Your task to perform on an android device: turn off location Image 0: 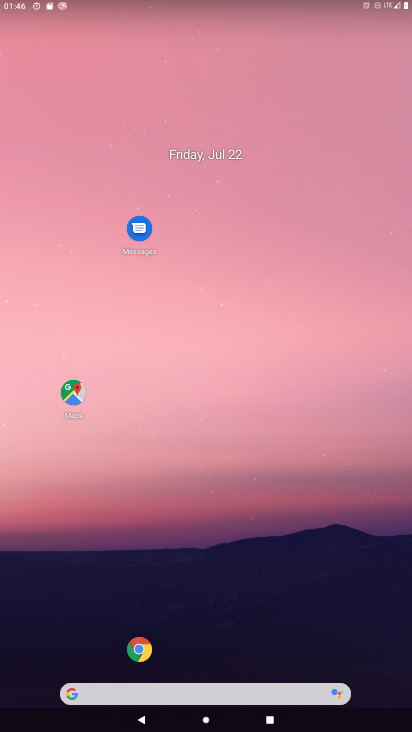
Step 0: drag from (54, 705) to (279, 173)
Your task to perform on an android device: turn off location Image 1: 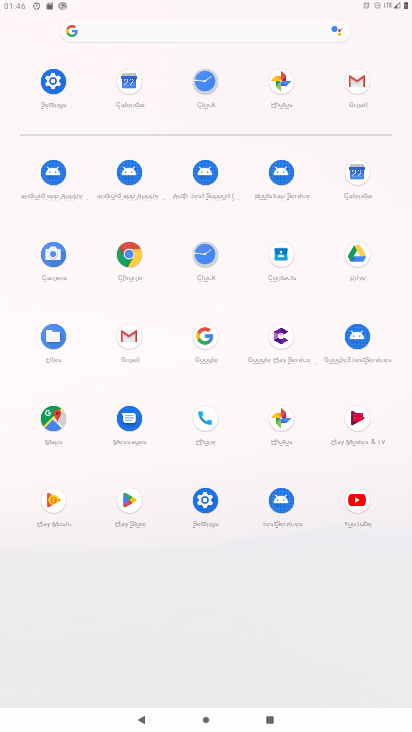
Step 1: click (199, 508)
Your task to perform on an android device: turn off location Image 2: 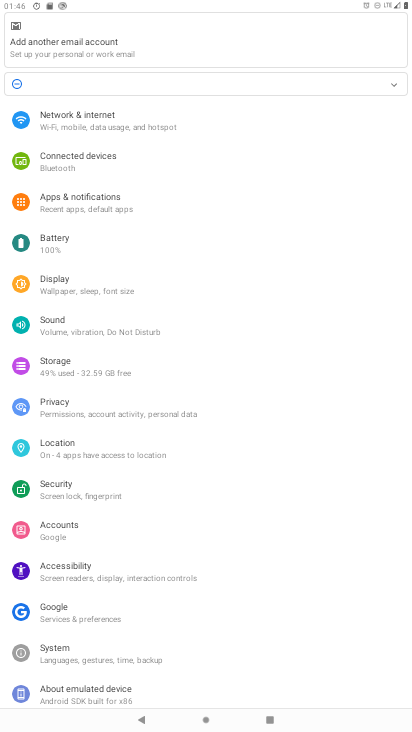
Step 2: click (76, 445)
Your task to perform on an android device: turn off location Image 3: 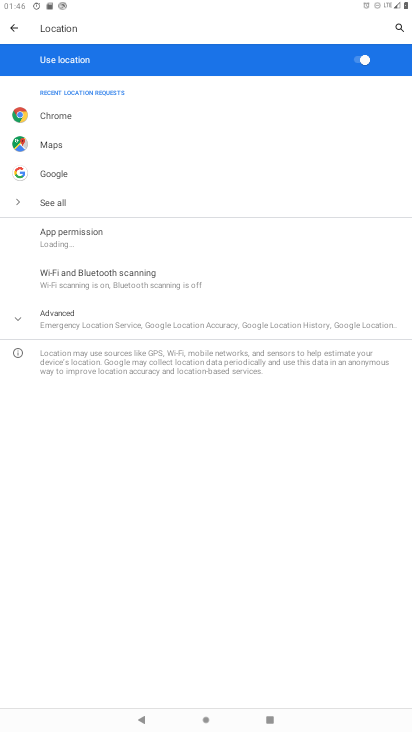
Step 3: click (91, 315)
Your task to perform on an android device: turn off location Image 4: 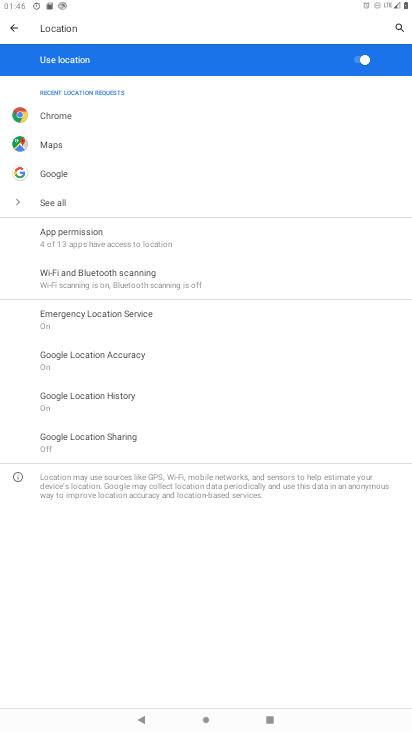
Step 4: click (364, 54)
Your task to perform on an android device: turn off location Image 5: 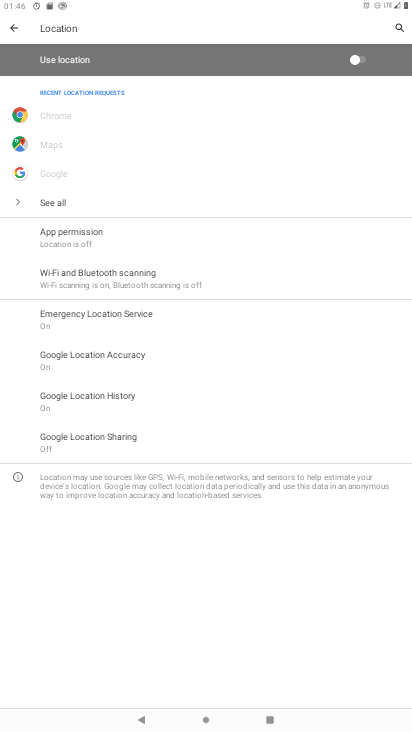
Step 5: task complete